Your task to perform on an android device: turn on wifi Image 0: 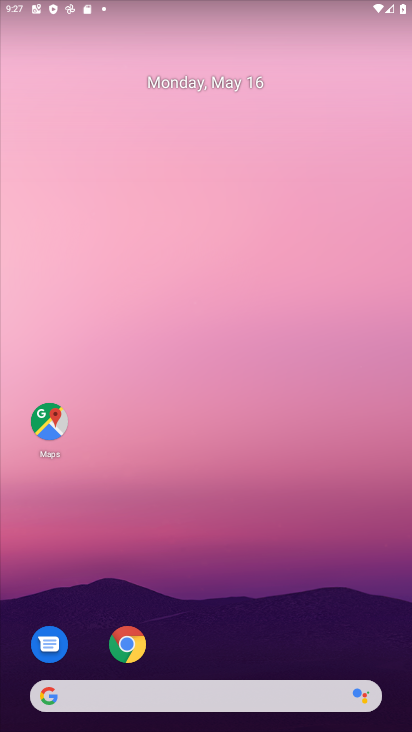
Step 0: drag from (258, 718) to (366, 3)
Your task to perform on an android device: turn on wifi Image 1: 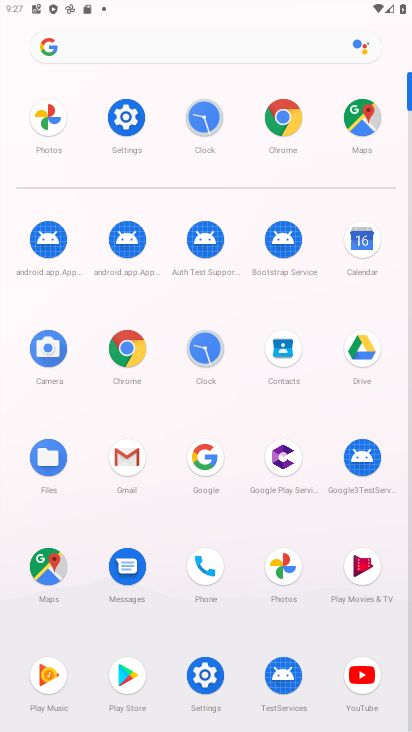
Step 1: click (134, 116)
Your task to perform on an android device: turn on wifi Image 2: 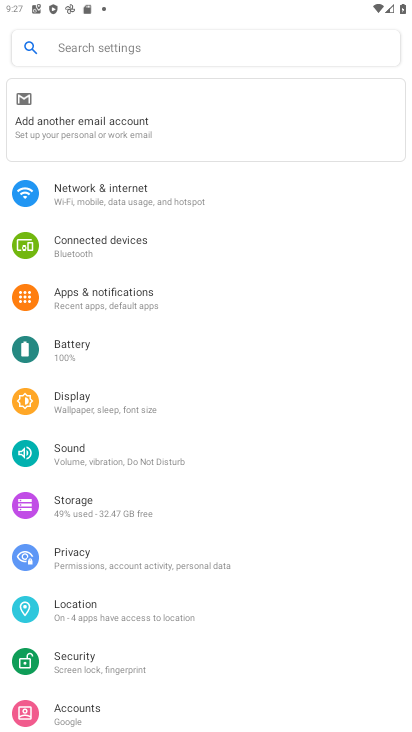
Step 2: click (225, 197)
Your task to perform on an android device: turn on wifi Image 3: 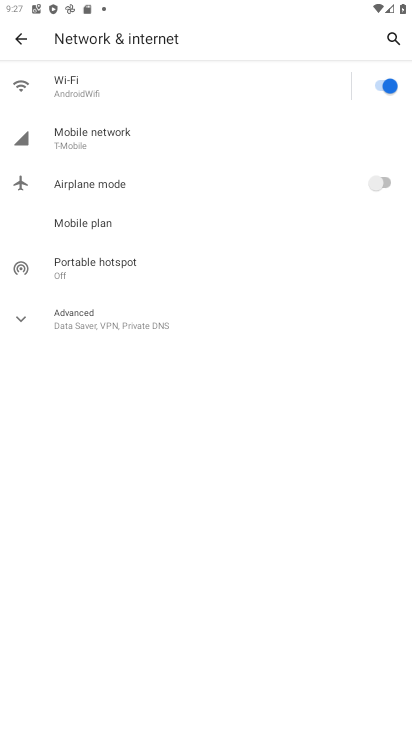
Step 3: task complete